Your task to perform on an android device: What's the weather going to be this weekend? Image 0: 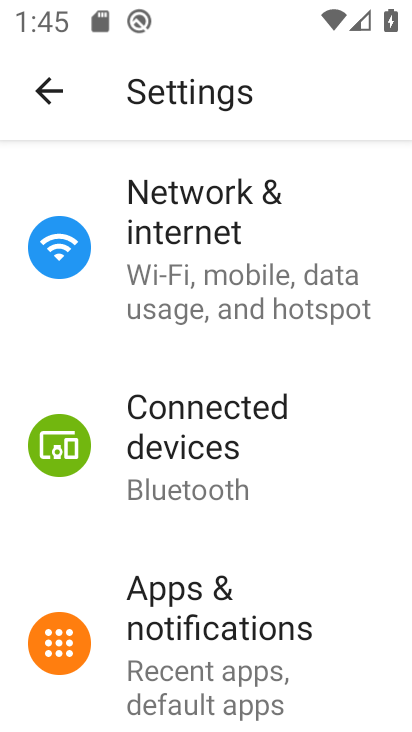
Step 0: press back button
Your task to perform on an android device: What's the weather going to be this weekend? Image 1: 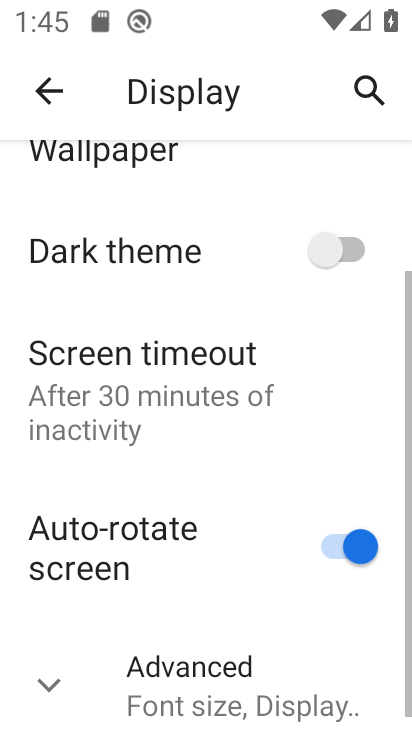
Step 1: press back button
Your task to perform on an android device: What's the weather going to be this weekend? Image 2: 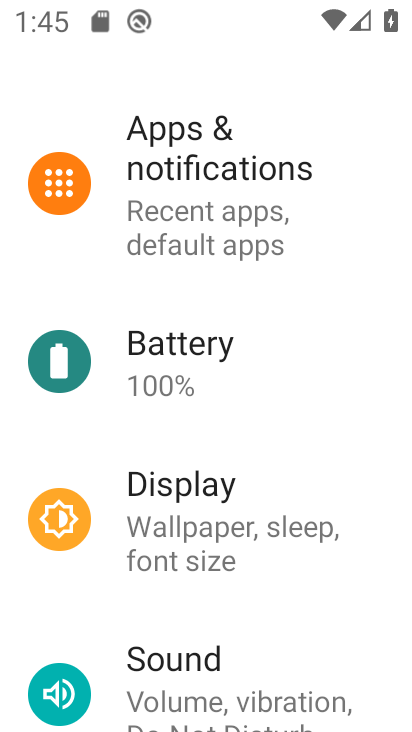
Step 2: press back button
Your task to perform on an android device: What's the weather going to be this weekend? Image 3: 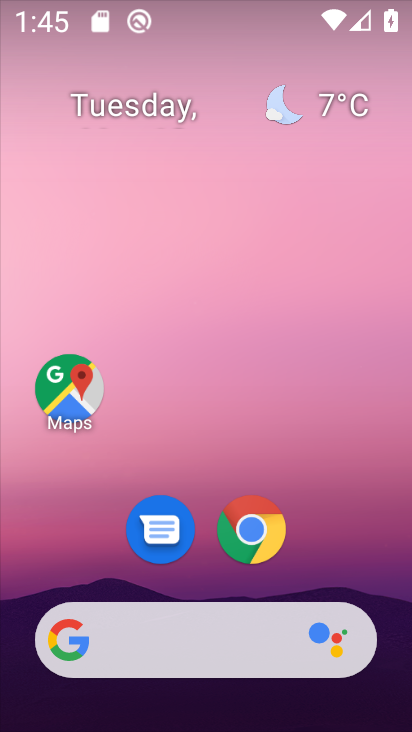
Step 3: drag from (330, 522) to (195, 85)
Your task to perform on an android device: What's the weather going to be this weekend? Image 4: 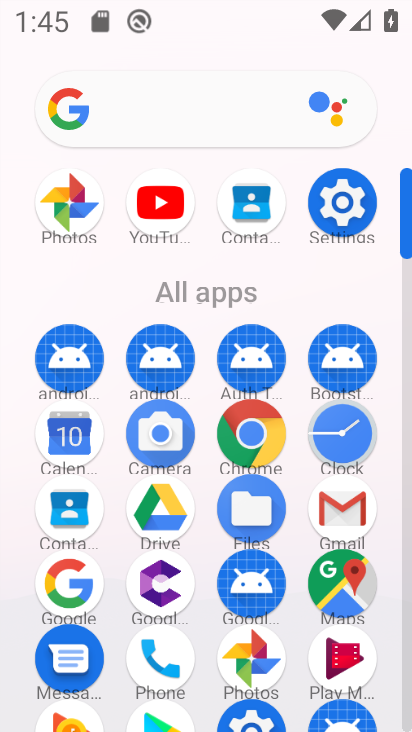
Step 4: click (64, 581)
Your task to perform on an android device: What's the weather going to be this weekend? Image 5: 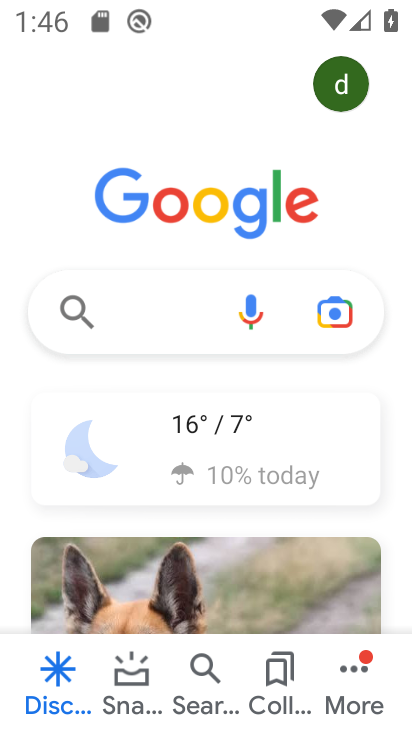
Step 5: click (169, 310)
Your task to perform on an android device: What's the weather going to be this weekend? Image 6: 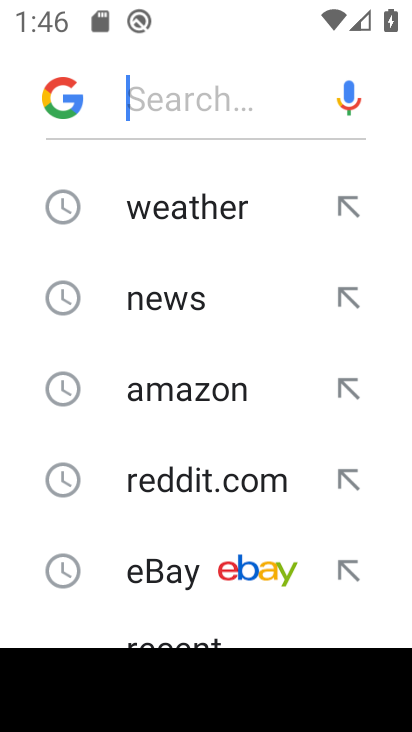
Step 6: click (213, 213)
Your task to perform on an android device: What's the weather going to be this weekend? Image 7: 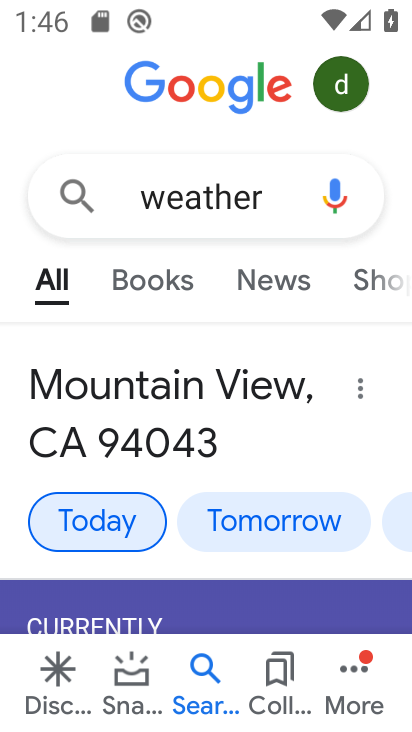
Step 7: drag from (262, 448) to (86, 446)
Your task to perform on an android device: What's the weather going to be this weekend? Image 8: 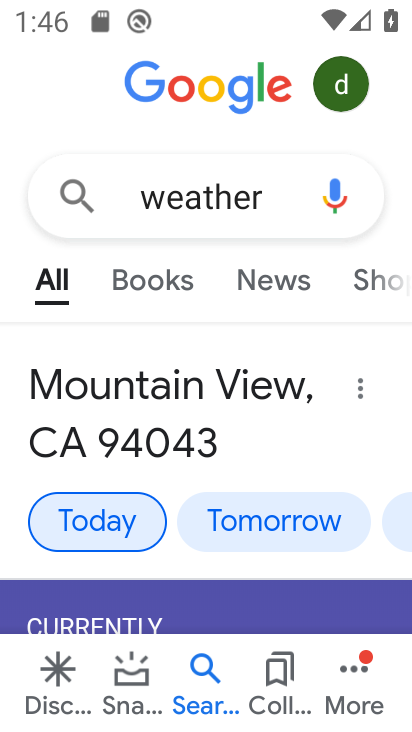
Step 8: drag from (359, 519) to (126, 508)
Your task to perform on an android device: What's the weather going to be this weekend? Image 9: 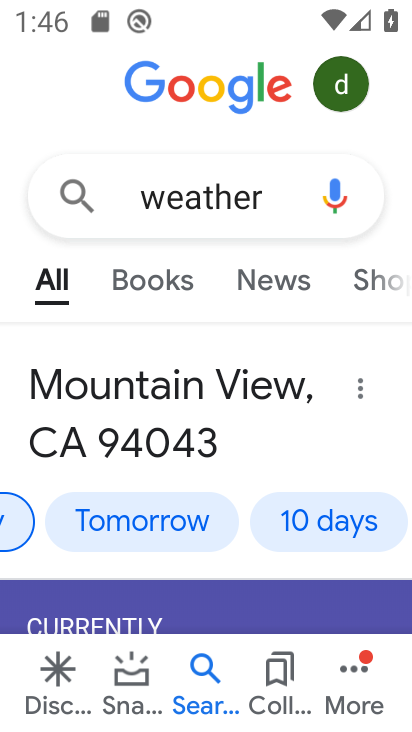
Step 9: click (318, 537)
Your task to perform on an android device: What's the weather going to be this weekend? Image 10: 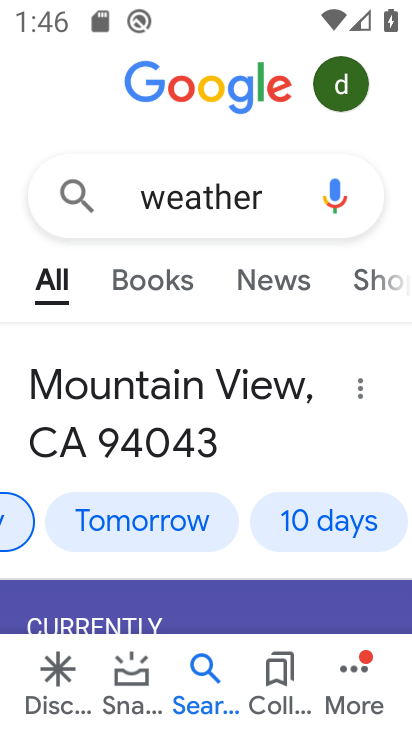
Step 10: click (316, 517)
Your task to perform on an android device: What's the weather going to be this weekend? Image 11: 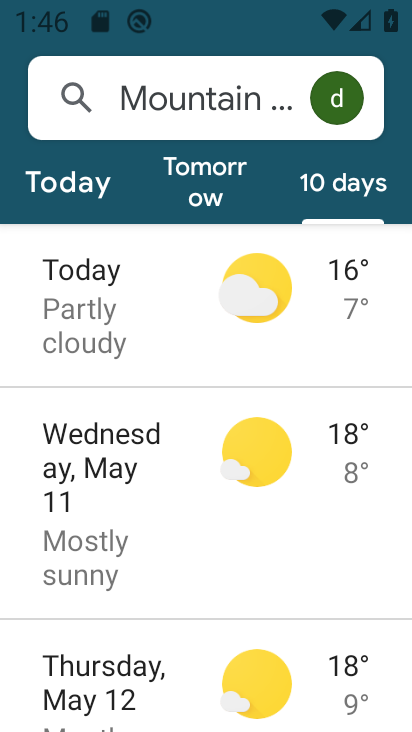
Step 11: task complete